Your task to perform on an android device: move a message to another label in the gmail app Image 0: 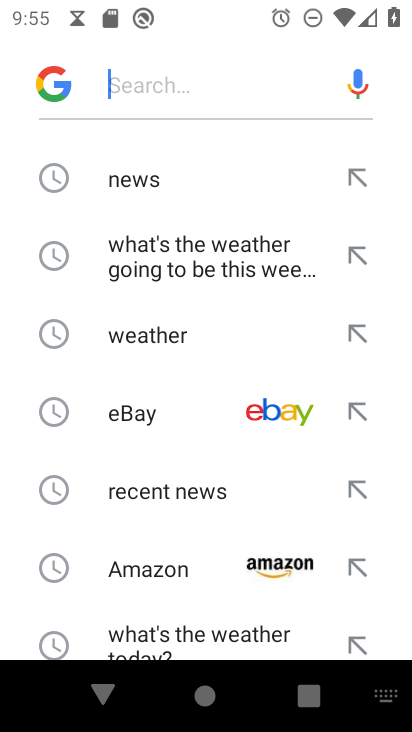
Step 0: press home button
Your task to perform on an android device: move a message to another label in the gmail app Image 1: 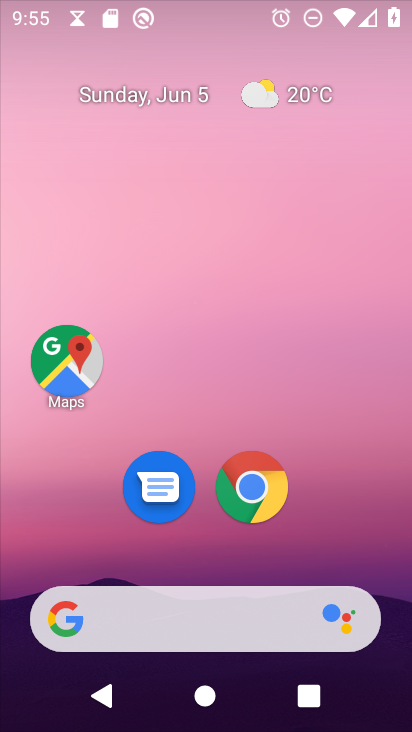
Step 1: drag from (221, 541) to (246, 243)
Your task to perform on an android device: move a message to another label in the gmail app Image 2: 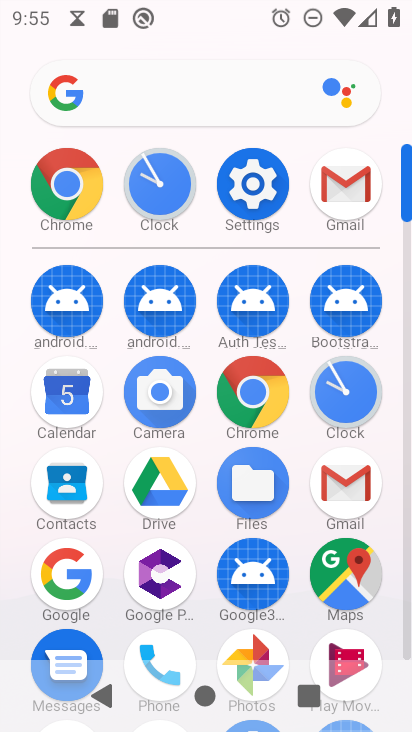
Step 2: click (345, 476)
Your task to perform on an android device: move a message to another label in the gmail app Image 3: 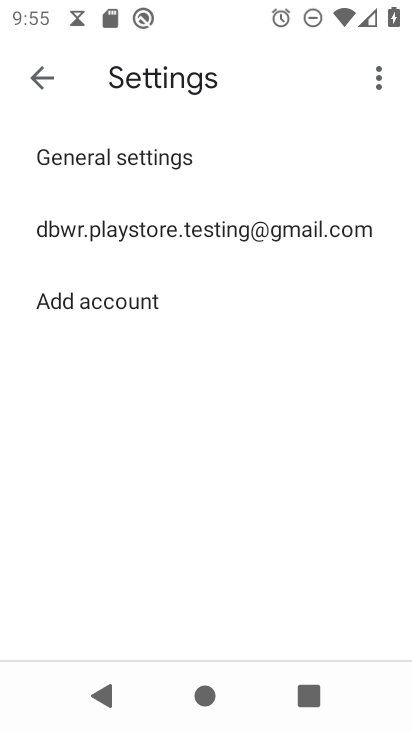
Step 3: click (43, 70)
Your task to perform on an android device: move a message to another label in the gmail app Image 4: 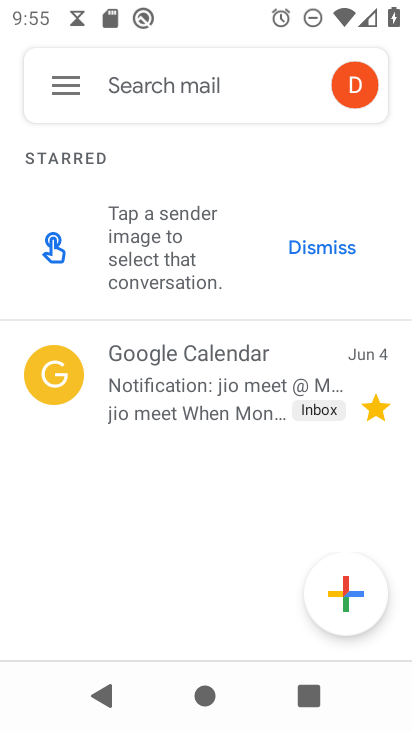
Step 4: click (72, 370)
Your task to perform on an android device: move a message to another label in the gmail app Image 5: 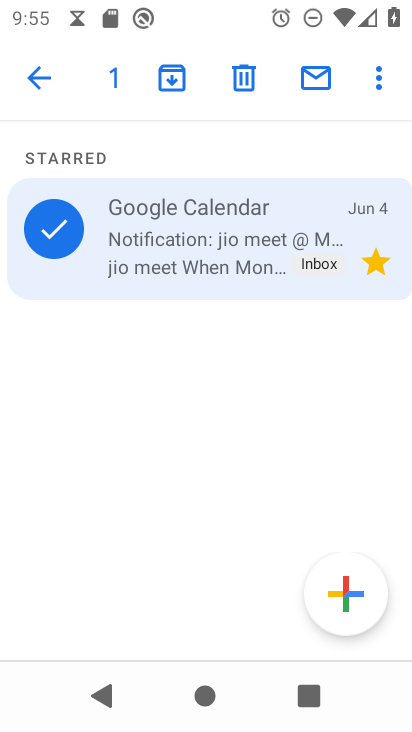
Step 5: click (362, 67)
Your task to perform on an android device: move a message to another label in the gmail app Image 6: 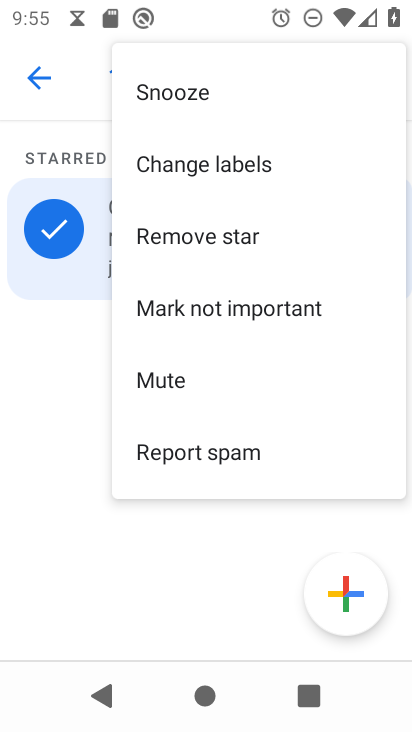
Step 6: click (213, 175)
Your task to perform on an android device: move a message to another label in the gmail app Image 7: 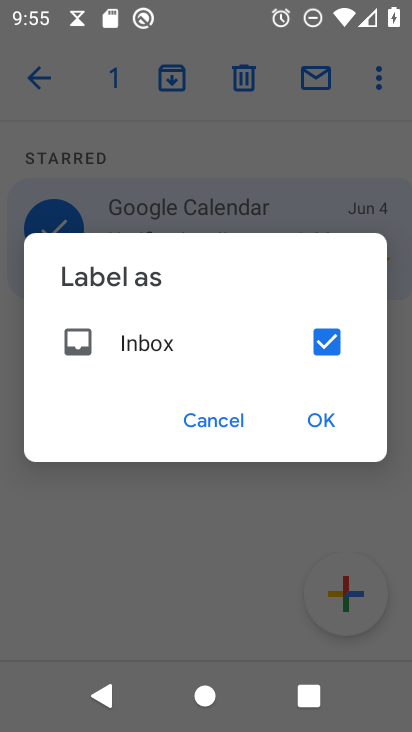
Step 7: click (309, 415)
Your task to perform on an android device: move a message to another label in the gmail app Image 8: 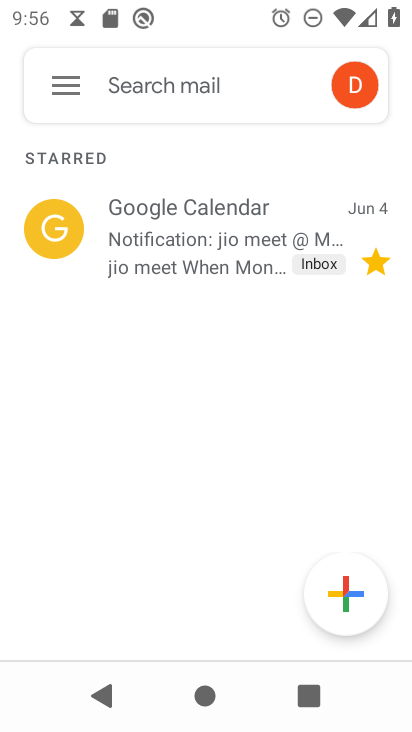
Step 8: task complete